Your task to perform on an android device: change the clock style Image 0: 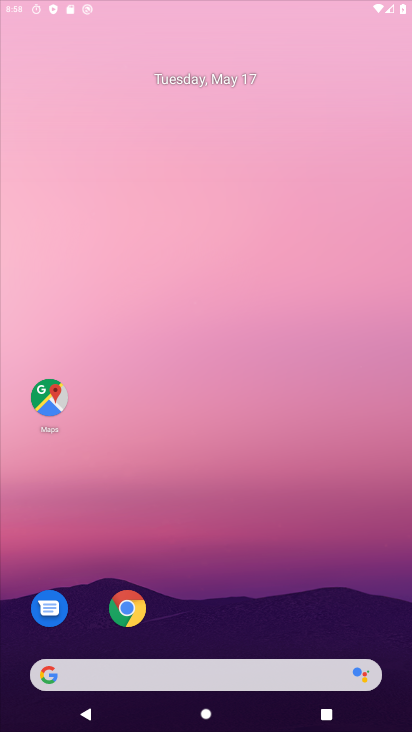
Step 0: click (352, 163)
Your task to perform on an android device: change the clock style Image 1: 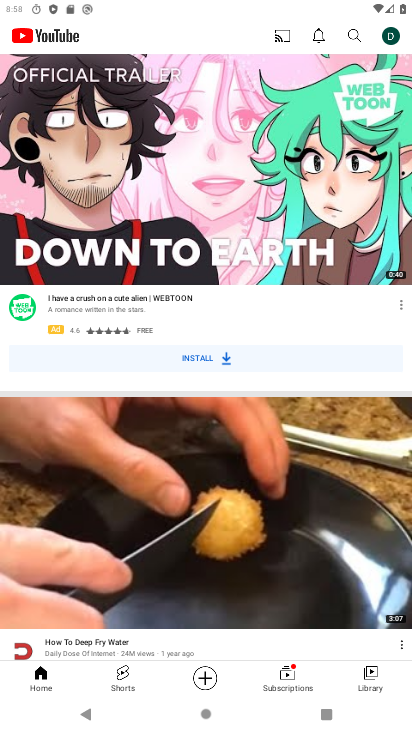
Step 1: press home button
Your task to perform on an android device: change the clock style Image 2: 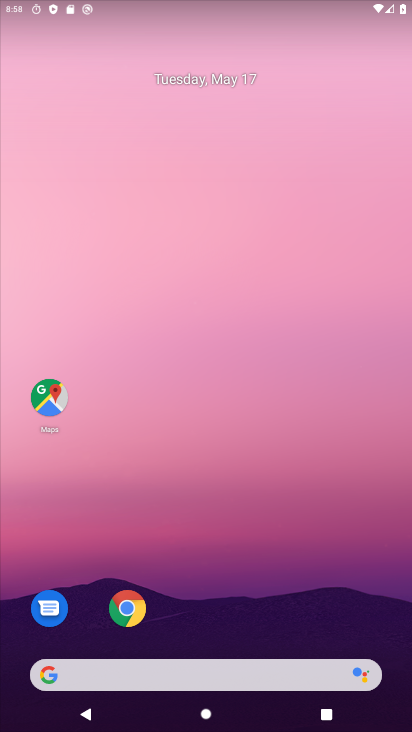
Step 2: drag from (301, 603) to (354, 135)
Your task to perform on an android device: change the clock style Image 3: 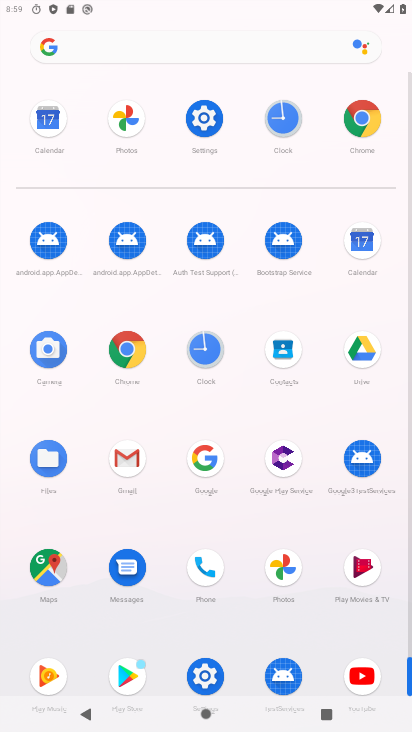
Step 3: click (208, 360)
Your task to perform on an android device: change the clock style Image 4: 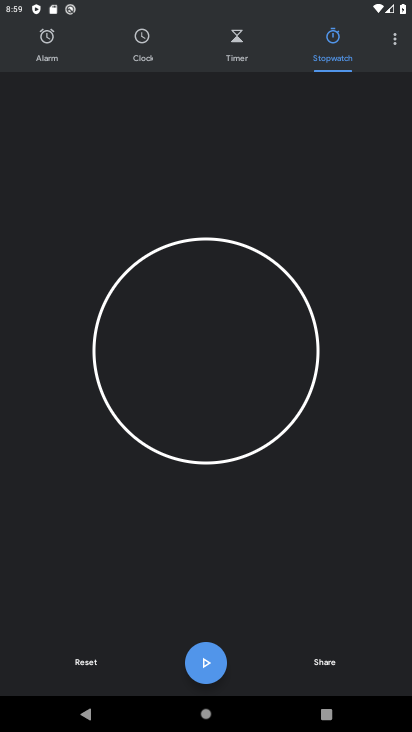
Step 4: drag from (395, 37) to (295, 90)
Your task to perform on an android device: change the clock style Image 5: 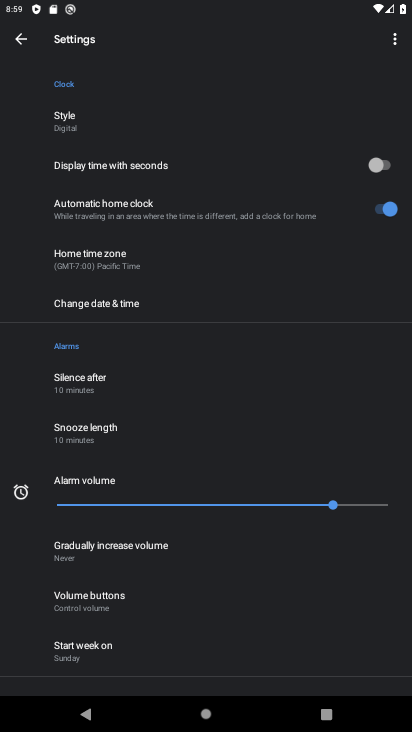
Step 5: click (96, 115)
Your task to perform on an android device: change the clock style Image 6: 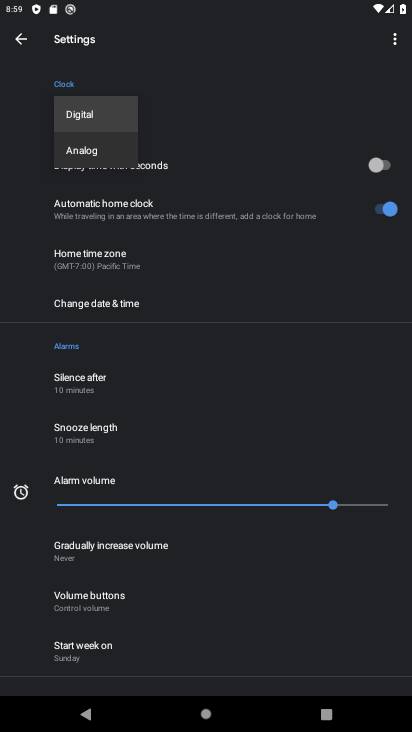
Step 6: click (92, 144)
Your task to perform on an android device: change the clock style Image 7: 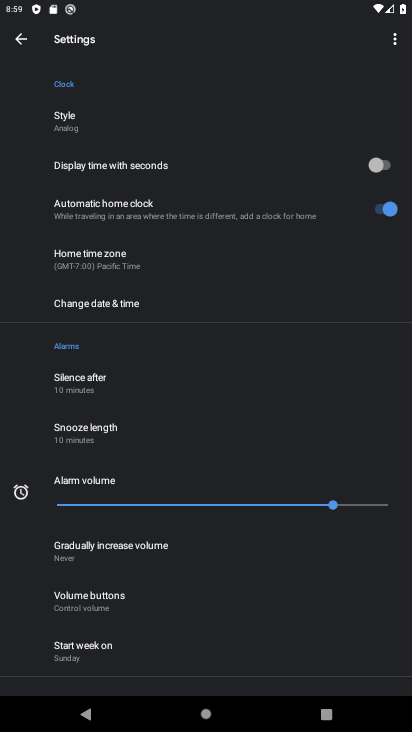
Step 7: task complete